Your task to perform on an android device: Open settings Image 0: 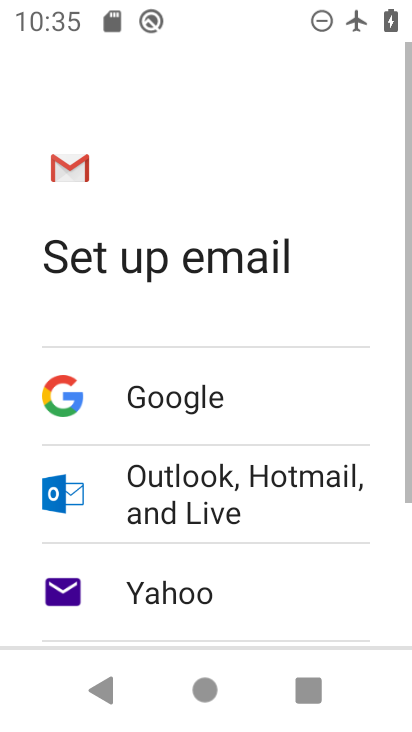
Step 0: press home button
Your task to perform on an android device: Open settings Image 1: 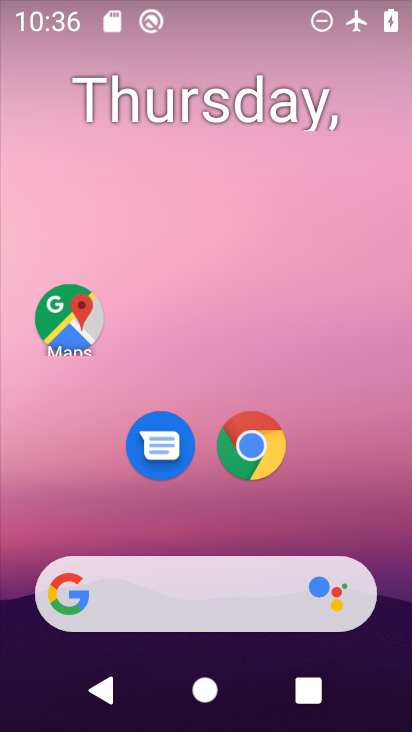
Step 1: drag from (215, 540) to (187, 8)
Your task to perform on an android device: Open settings Image 2: 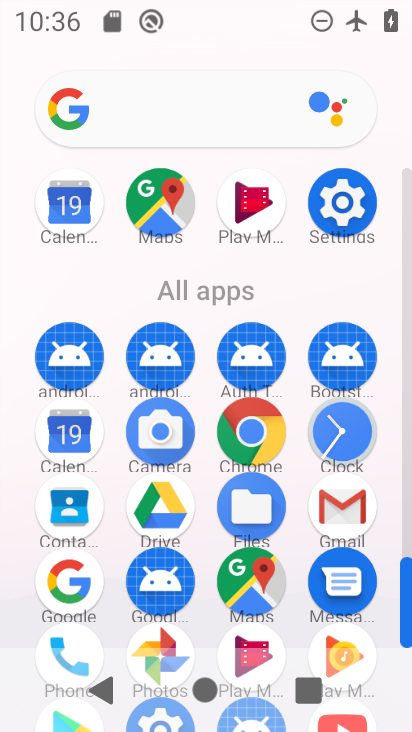
Step 2: click (344, 197)
Your task to perform on an android device: Open settings Image 3: 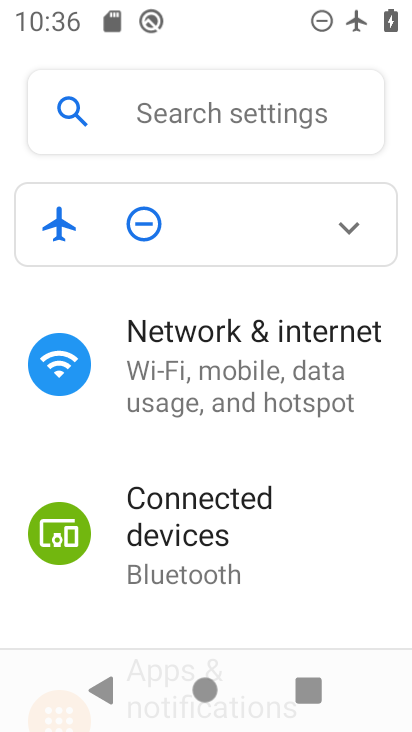
Step 3: task complete